Your task to perform on an android device: Open Google Image 0: 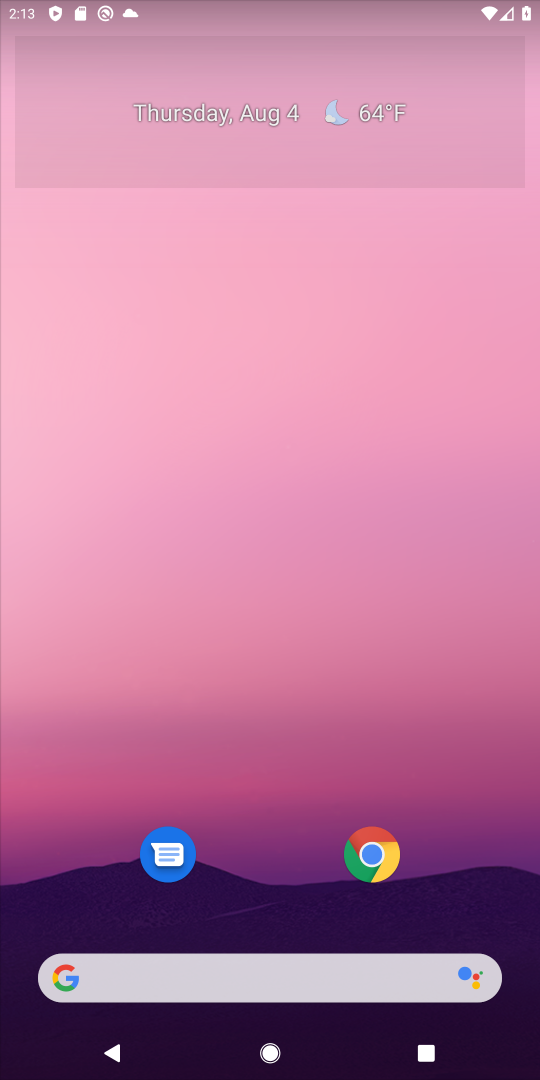
Step 0: click (374, 979)
Your task to perform on an android device: Open Google Image 1: 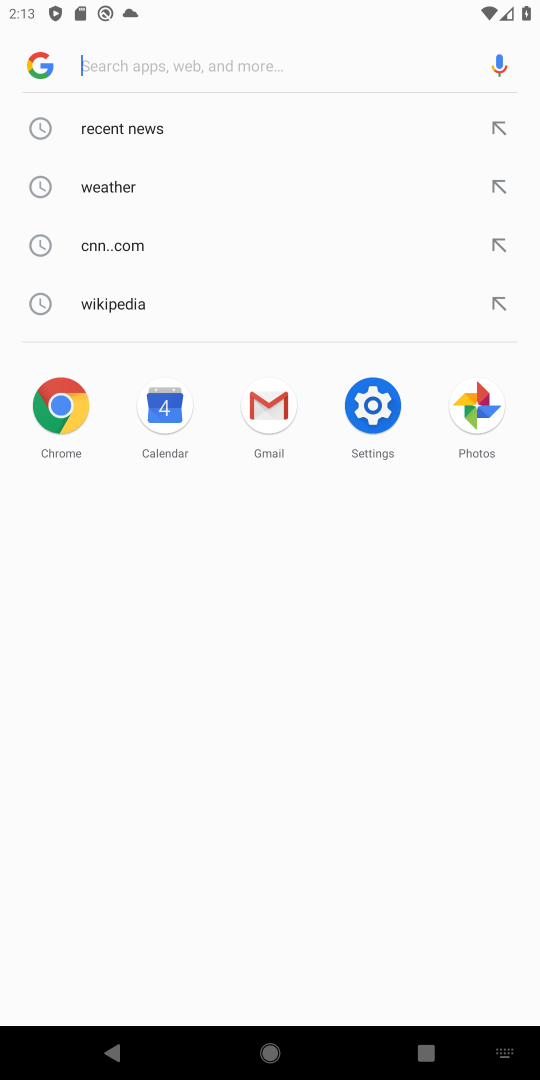
Step 1: task complete